Your task to perform on an android device: What's the weather? Image 0: 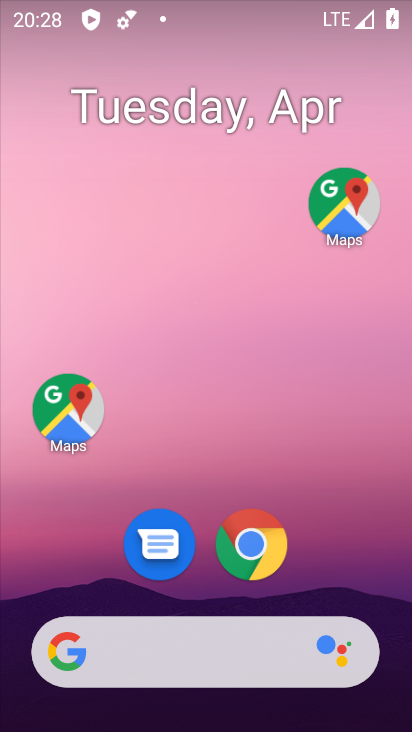
Step 0: drag from (199, 623) to (339, 54)
Your task to perform on an android device: What's the weather? Image 1: 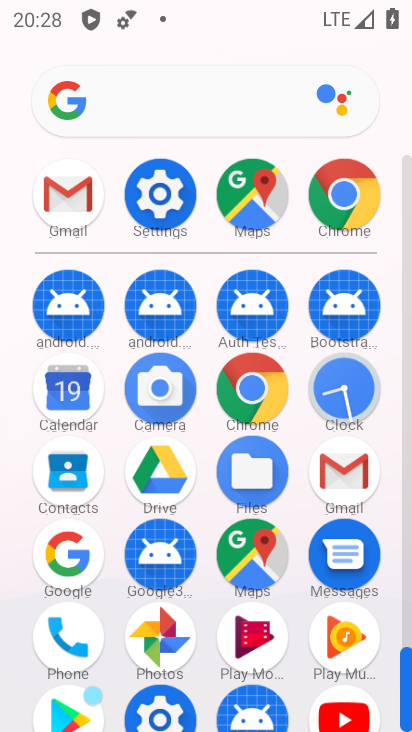
Step 1: click (79, 565)
Your task to perform on an android device: What's the weather? Image 2: 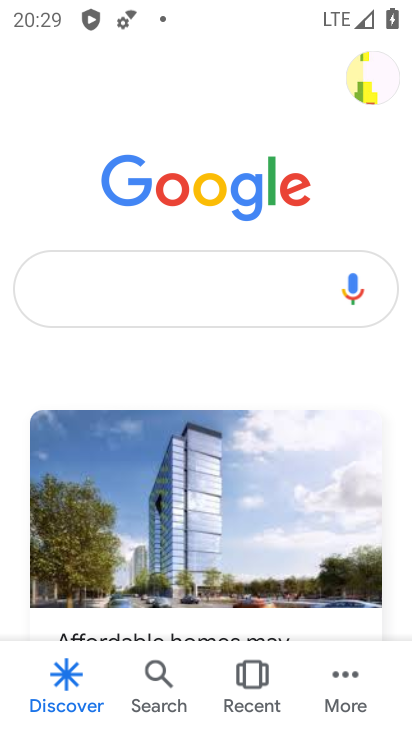
Step 2: click (168, 289)
Your task to perform on an android device: What's the weather? Image 3: 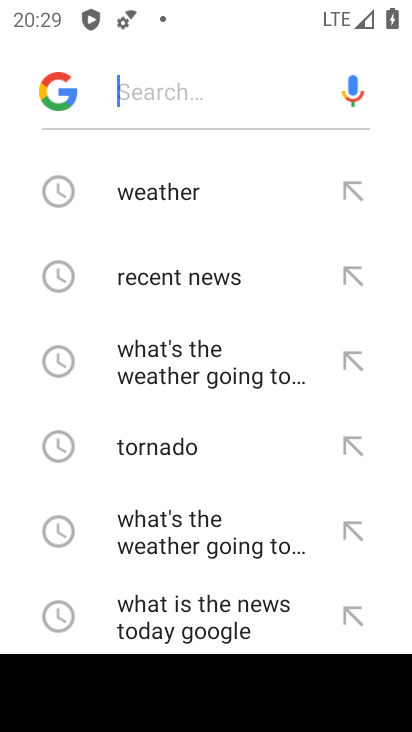
Step 3: click (150, 196)
Your task to perform on an android device: What's the weather? Image 4: 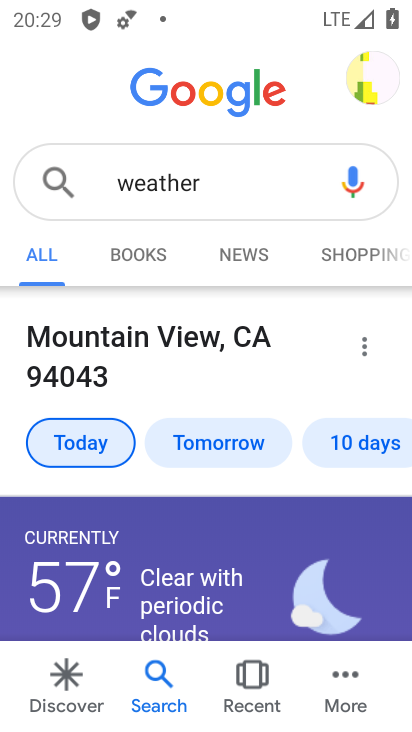
Step 4: task complete